Your task to perform on an android device: toggle improve location accuracy Image 0: 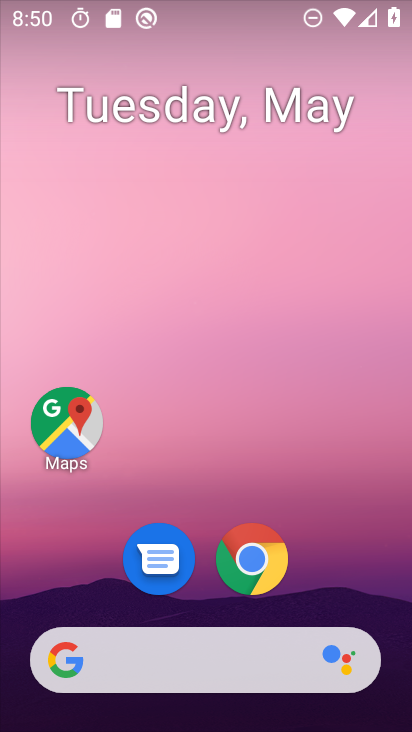
Step 0: drag from (400, 646) to (297, 114)
Your task to perform on an android device: toggle improve location accuracy Image 1: 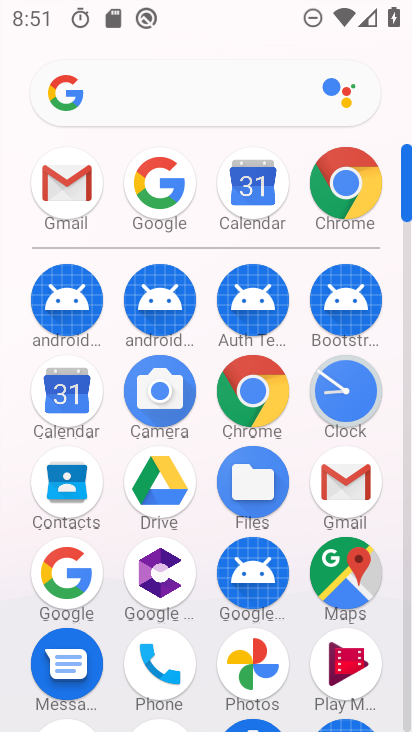
Step 1: drag from (219, 662) to (182, 157)
Your task to perform on an android device: toggle improve location accuracy Image 2: 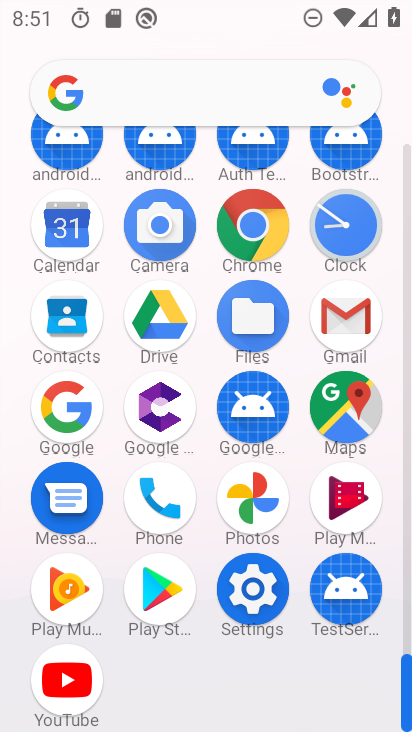
Step 2: click (255, 601)
Your task to perform on an android device: toggle improve location accuracy Image 3: 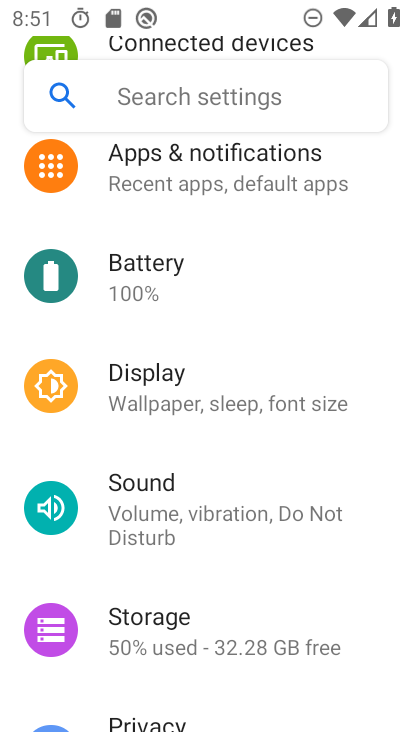
Step 3: drag from (192, 590) to (230, 183)
Your task to perform on an android device: toggle improve location accuracy Image 4: 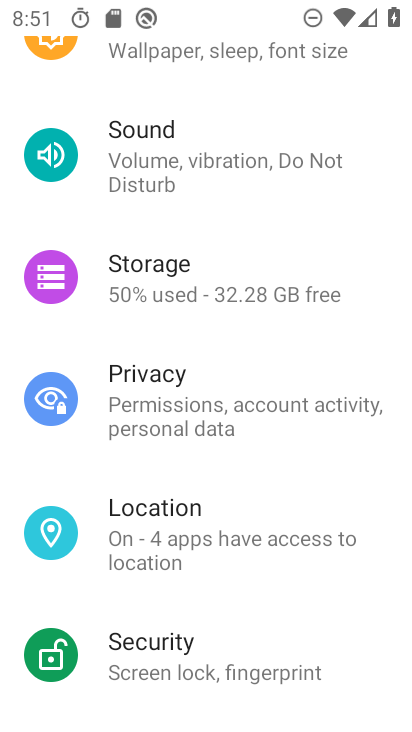
Step 4: click (223, 501)
Your task to perform on an android device: toggle improve location accuracy Image 5: 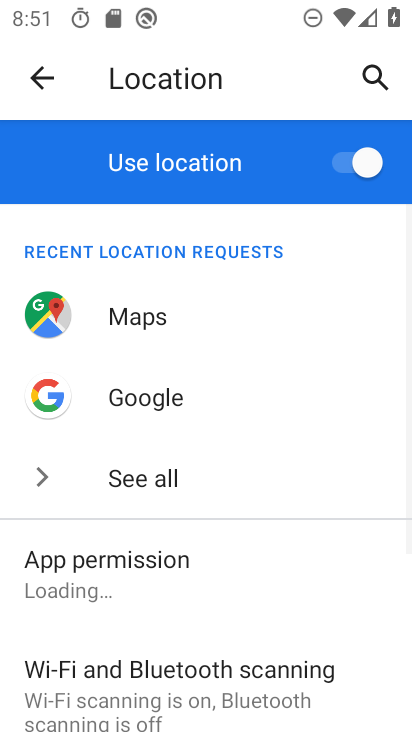
Step 5: drag from (167, 695) to (226, 217)
Your task to perform on an android device: toggle improve location accuracy Image 6: 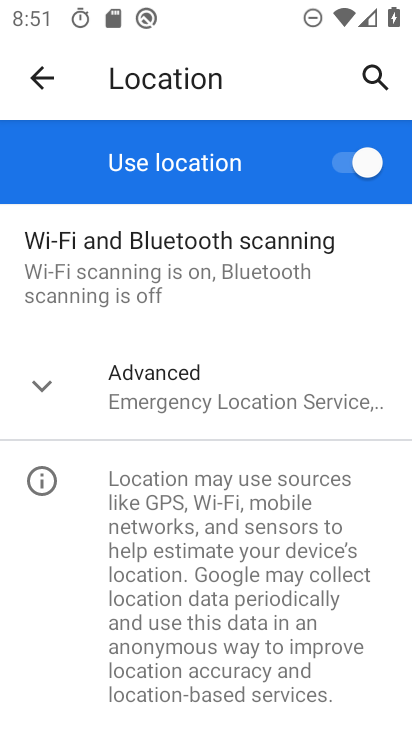
Step 6: click (136, 406)
Your task to perform on an android device: toggle improve location accuracy Image 7: 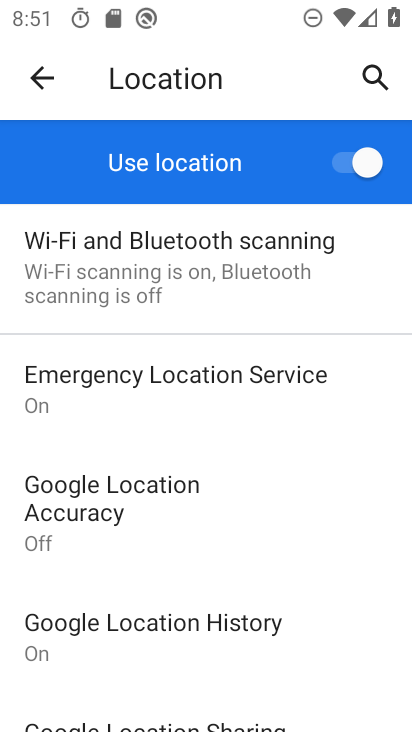
Step 7: click (164, 710)
Your task to perform on an android device: toggle improve location accuracy Image 8: 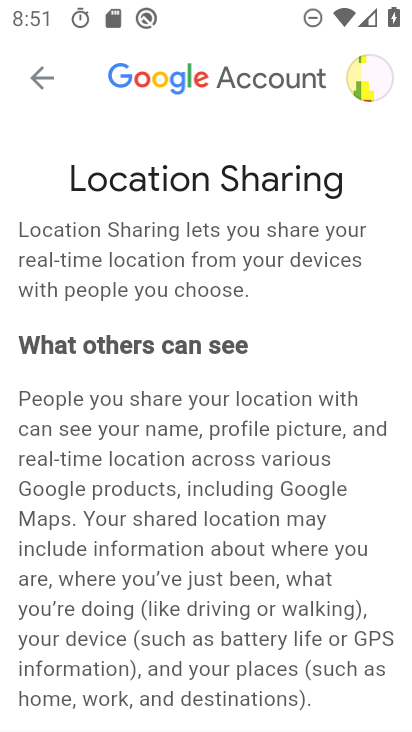
Step 8: drag from (263, 661) to (271, 82)
Your task to perform on an android device: toggle improve location accuracy Image 9: 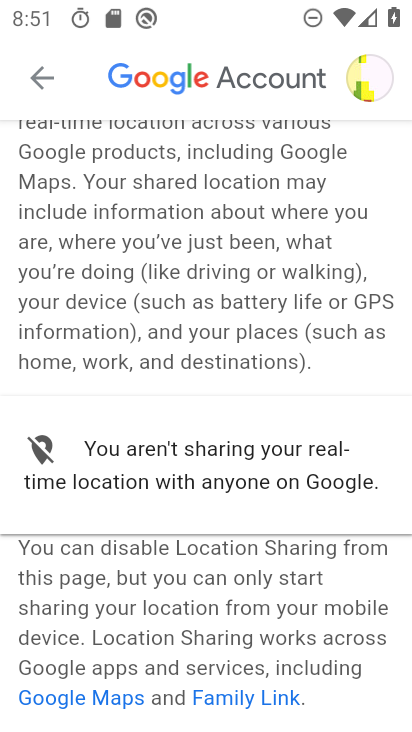
Step 9: drag from (232, 586) to (261, 338)
Your task to perform on an android device: toggle improve location accuracy Image 10: 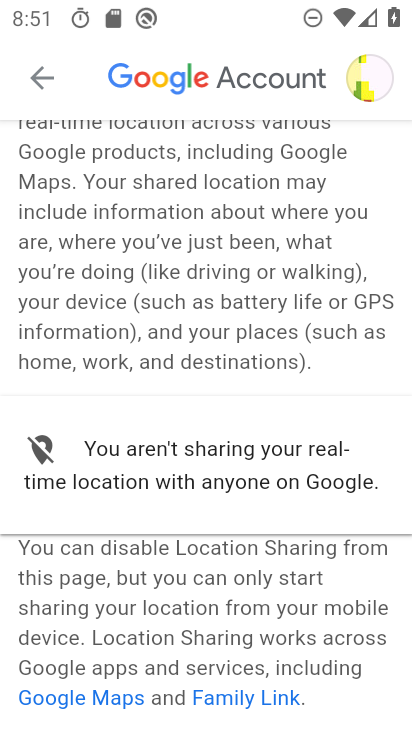
Step 10: drag from (246, 130) to (276, 591)
Your task to perform on an android device: toggle improve location accuracy Image 11: 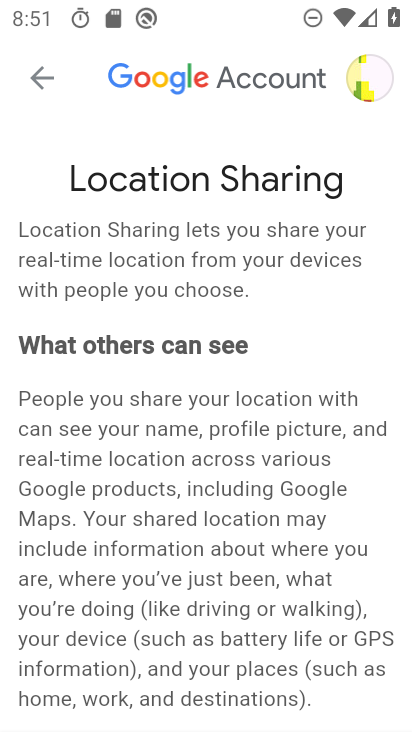
Step 11: drag from (344, 657) to (364, 184)
Your task to perform on an android device: toggle improve location accuracy Image 12: 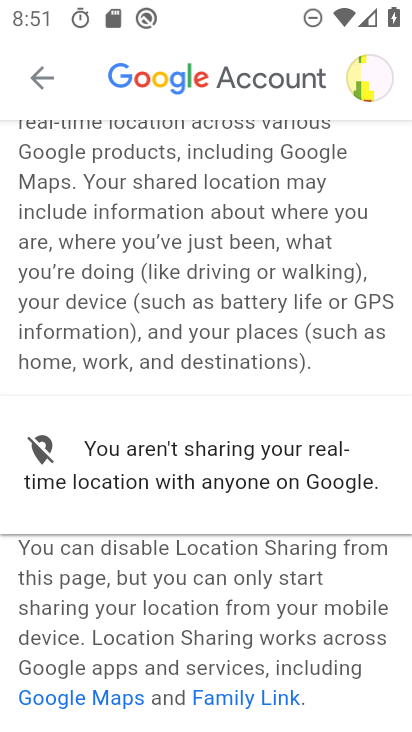
Step 12: click (232, 449)
Your task to perform on an android device: toggle improve location accuracy Image 13: 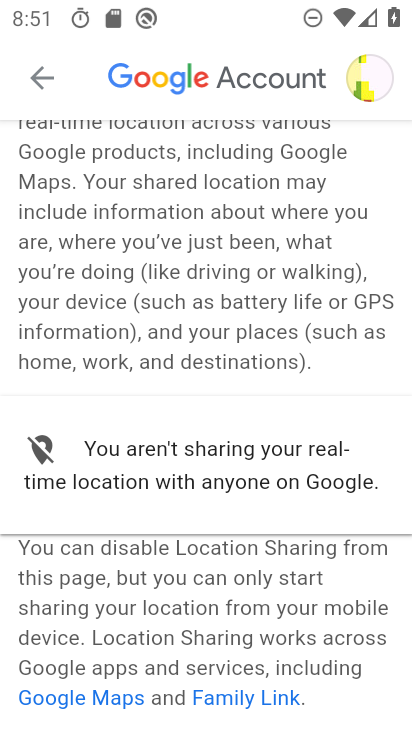
Step 13: task complete